Your task to perform on an android device: see creations saved in the google photos Image 0: 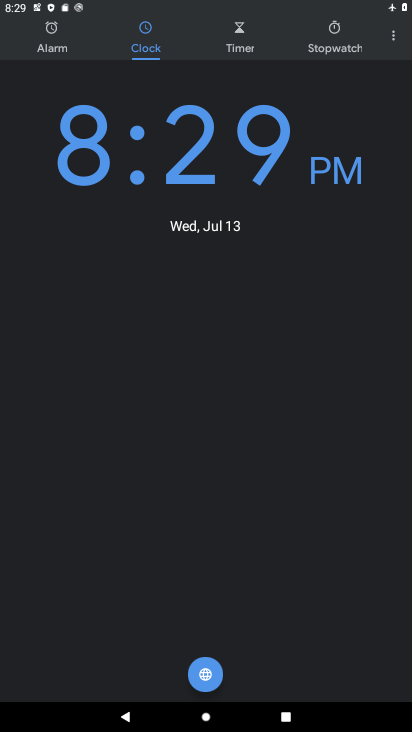
Step 0: press home button
Your task to perform on an android device: see creations saved in the google photos Image 1: 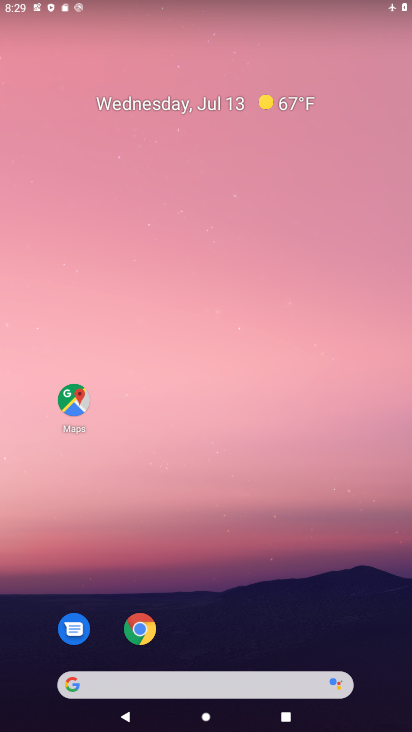
Step 1: drag from (214, 673) to (214, 99)
Your task to perform on an android device: see creations saved in the google photos Image 2: 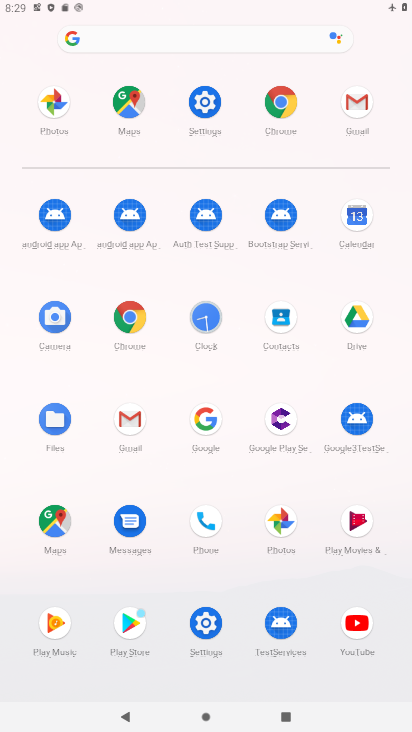
Step 2: click (286, 537)
Your task to perform on an android device: see creations saved in the google photos Image 3: 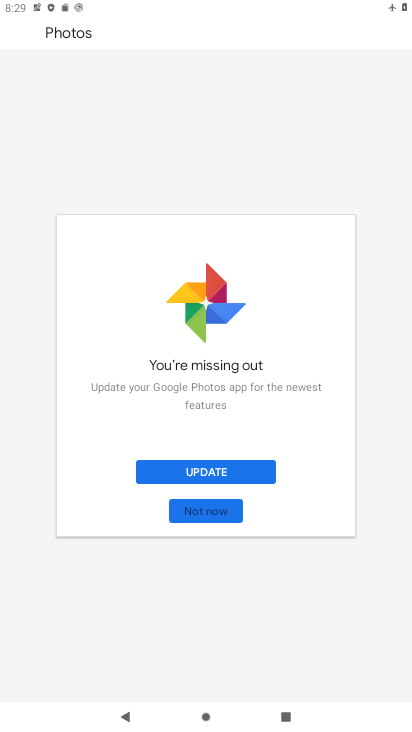
Step 3: click (210, 513)
Your task to perform on an android device: see creations saved in the google photos Image 4: 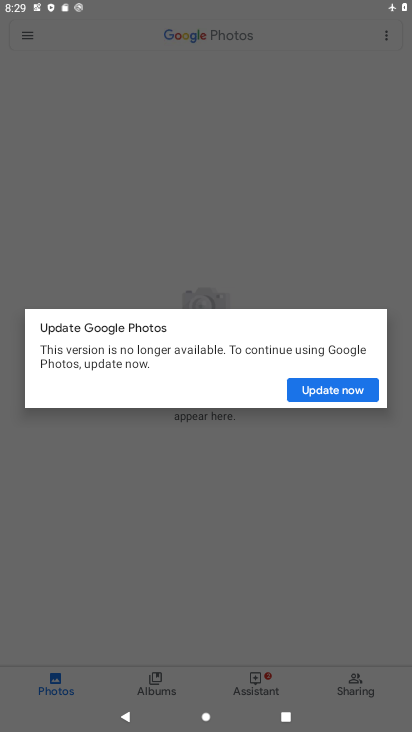
Step 4: click (349, 386)
Your task to perform on an android device: see creations saved in the google photos Image 5: 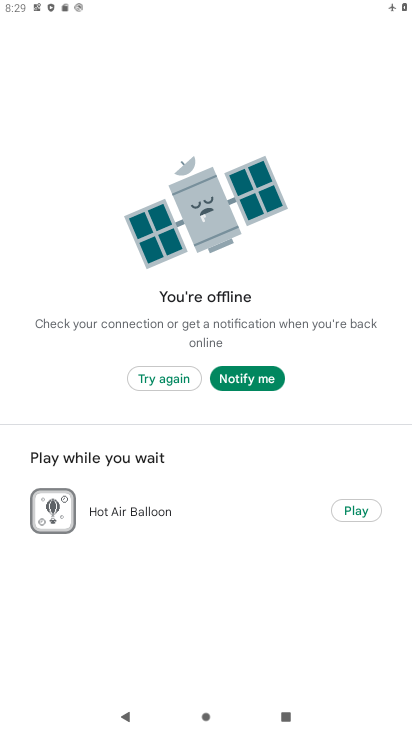
Step 5: press back button
Your task to perform on an android device: see creations saved in the google photos Image 6: 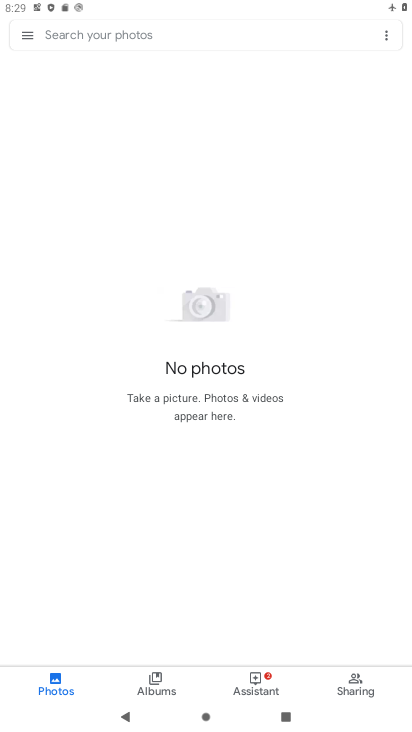
Step 6: click (196, 32)
Your task to perform on an android device: see creations saved in the google photos Image 7: 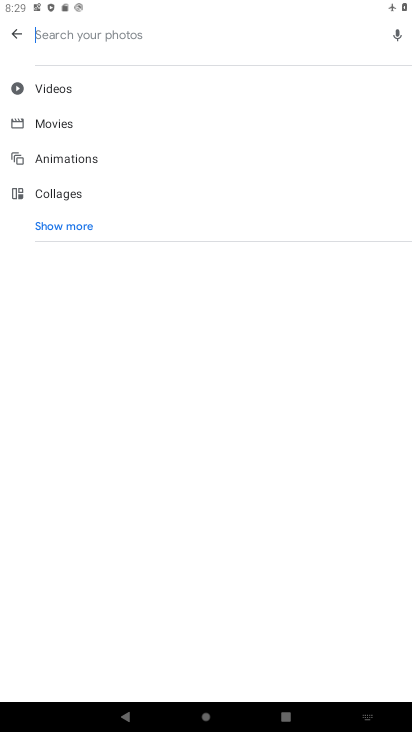
Step 7: type "creations"
Your task to perform on an android device: see creations saved in the google photos Image 8: 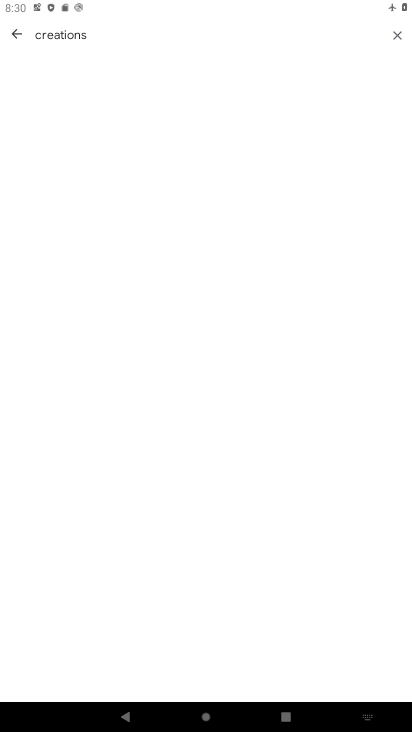
Step 8: task complete